Your task to perform on an android device: change keyboard looks Image 0: 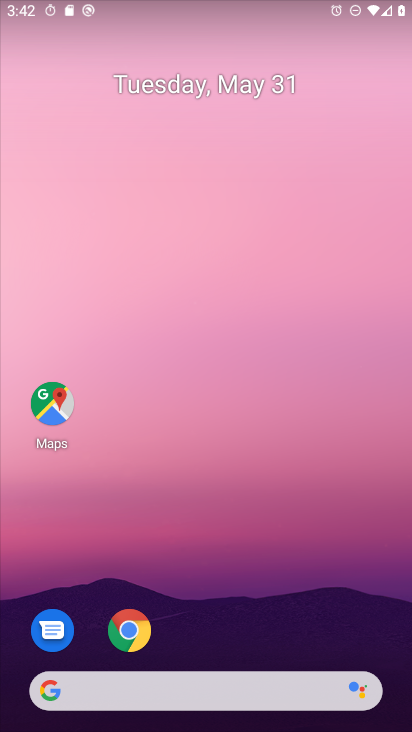
Step 0: drag from (299, 686) to (274, 4)
Your task to perform on an android device: change keyboard looks Image 1: 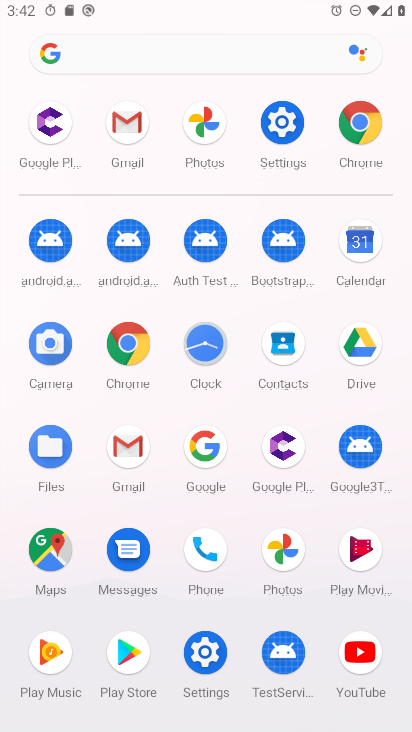
Step 1: click (291, 132)
Your task to perform on an android device: change keyboard looks Image 2: 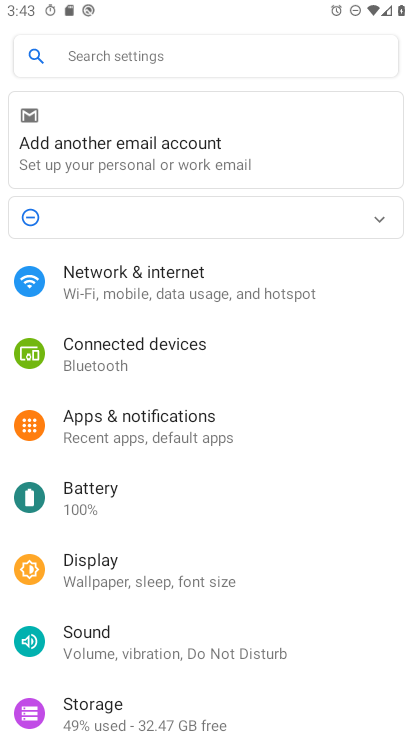
Step 2: drag from (201, 689) to (229, 147)
Your task to perform on an android device: change keyboard looks Image 3: 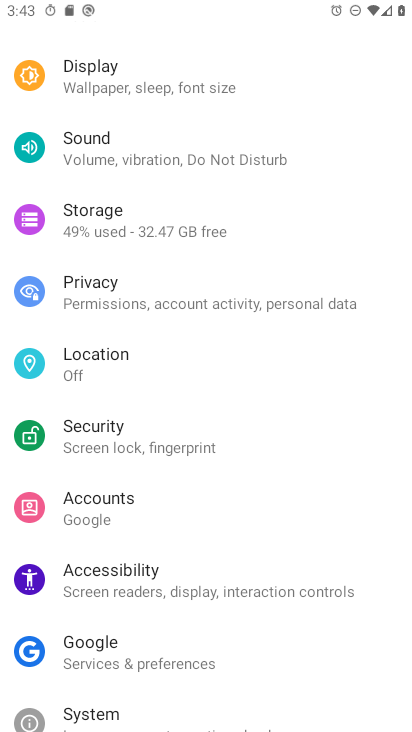
Step 3: drag from (220, 712) to (264, 312)
Your task to perform on an android device: change keyboard looks Image 4: 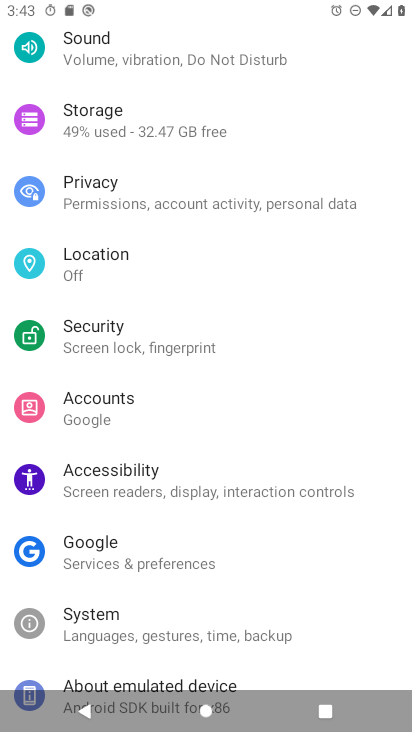
Step 4: click (142, 620)
Your task to perform on an android device: change keyboard looks Image 5: 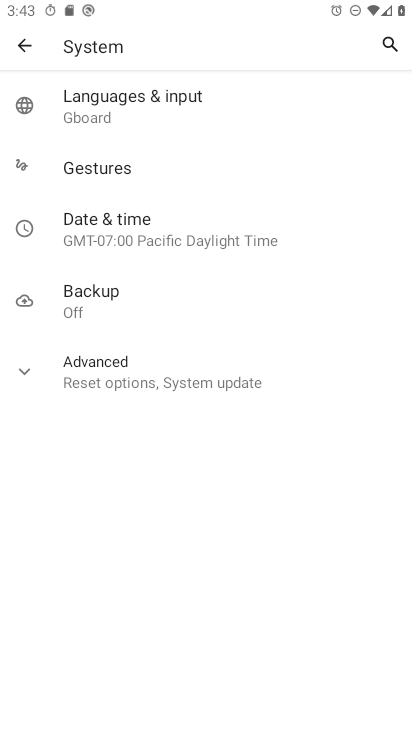
Step 5: click (147, 106)
Your task to perform on an android device: change keyboard looks Image 6: 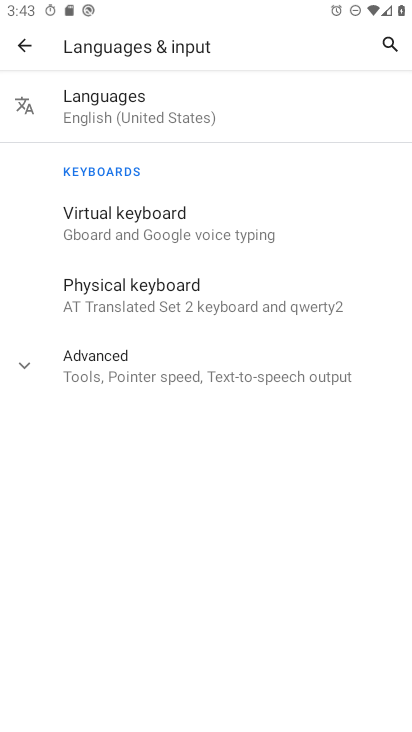
Step 6: click (139, 214)
Your task to perform on an android device: change keyboard looks Image 7: 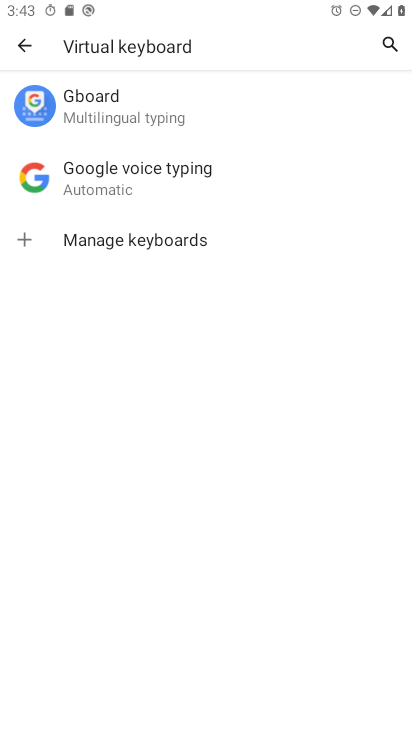
Step 7: click (139, 112)
Your task to perform on an android device: change keyboard looks Image 8: 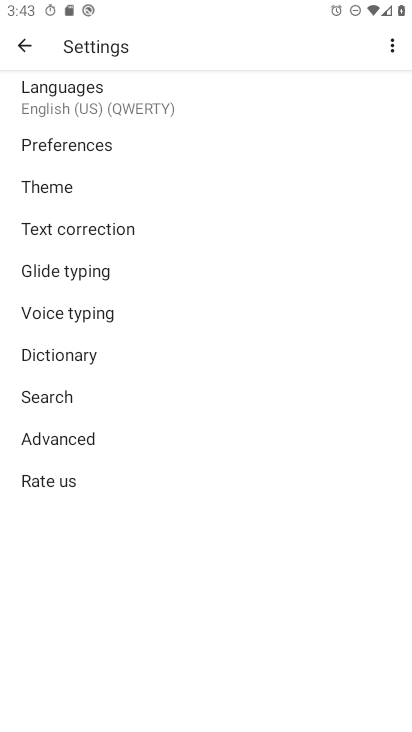
Step 8: click (69, 175)
Your task to perform on an android device: change keyboard looks Image 9: 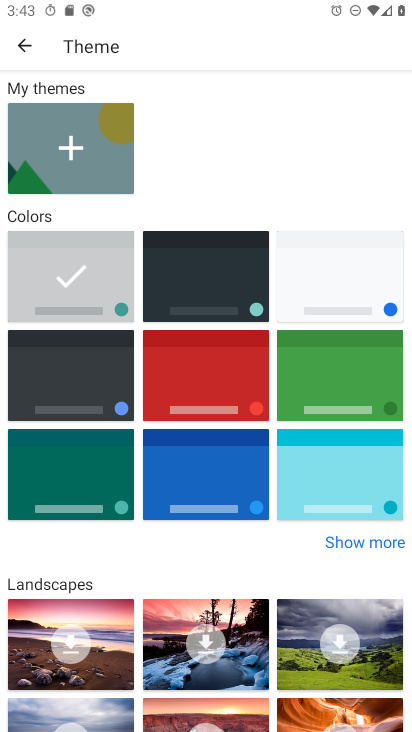
Step 9: click (241, 395)
Your task to perform on an android device: change keyboard looks Image 10: 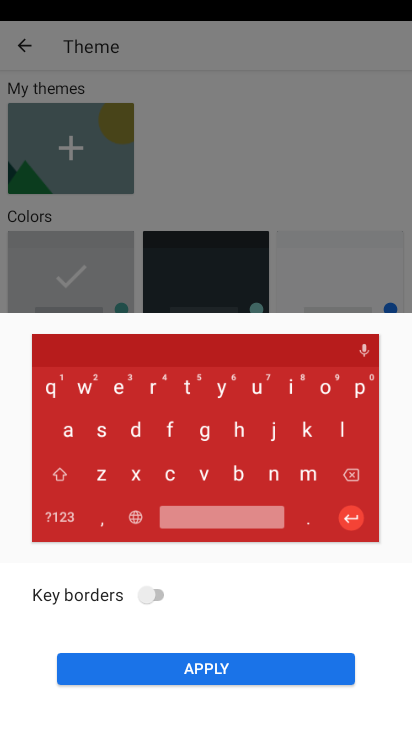
Step 10: click (265, 676)
Your task to perform on an android device: change keyboard looks Image 11: 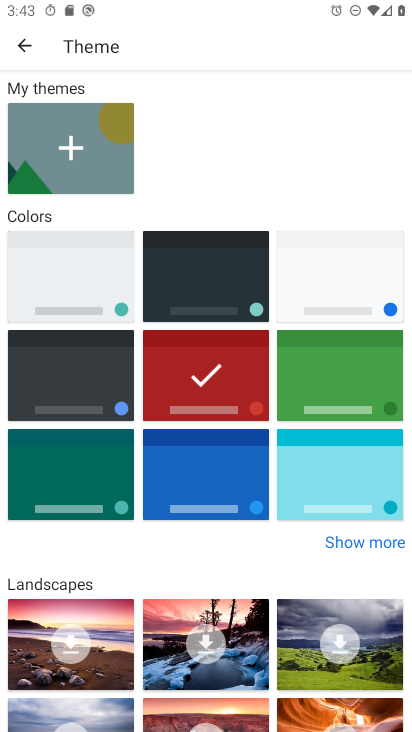
Step 11: task complete